Your task to perform on an android device: open app "Messenger Lite" (install if not already installed) and go to login screen Image 0: 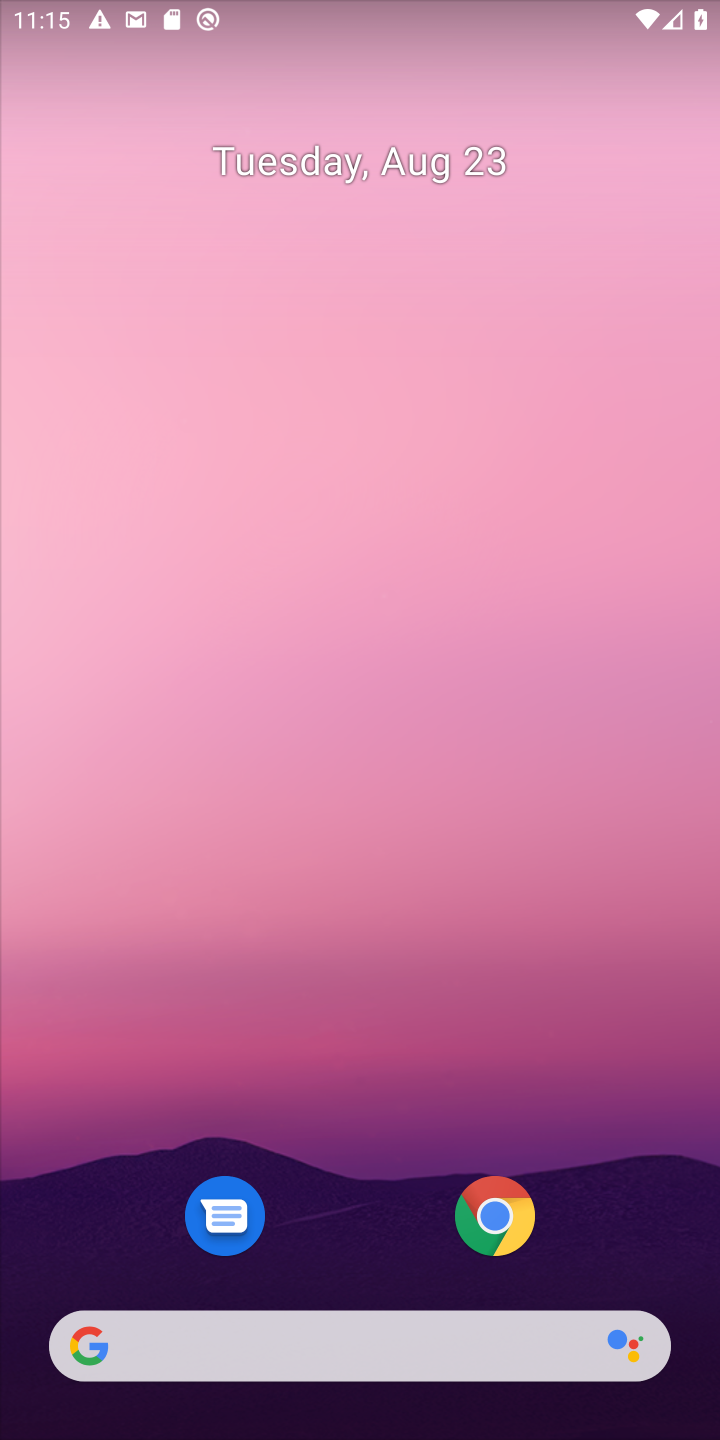
Step 0: drag from (281, 1356) to (533, 74)
Your task to perform on an android device: open app "Messenger Lite" (install if not already installed) and go to login screen Image 1: 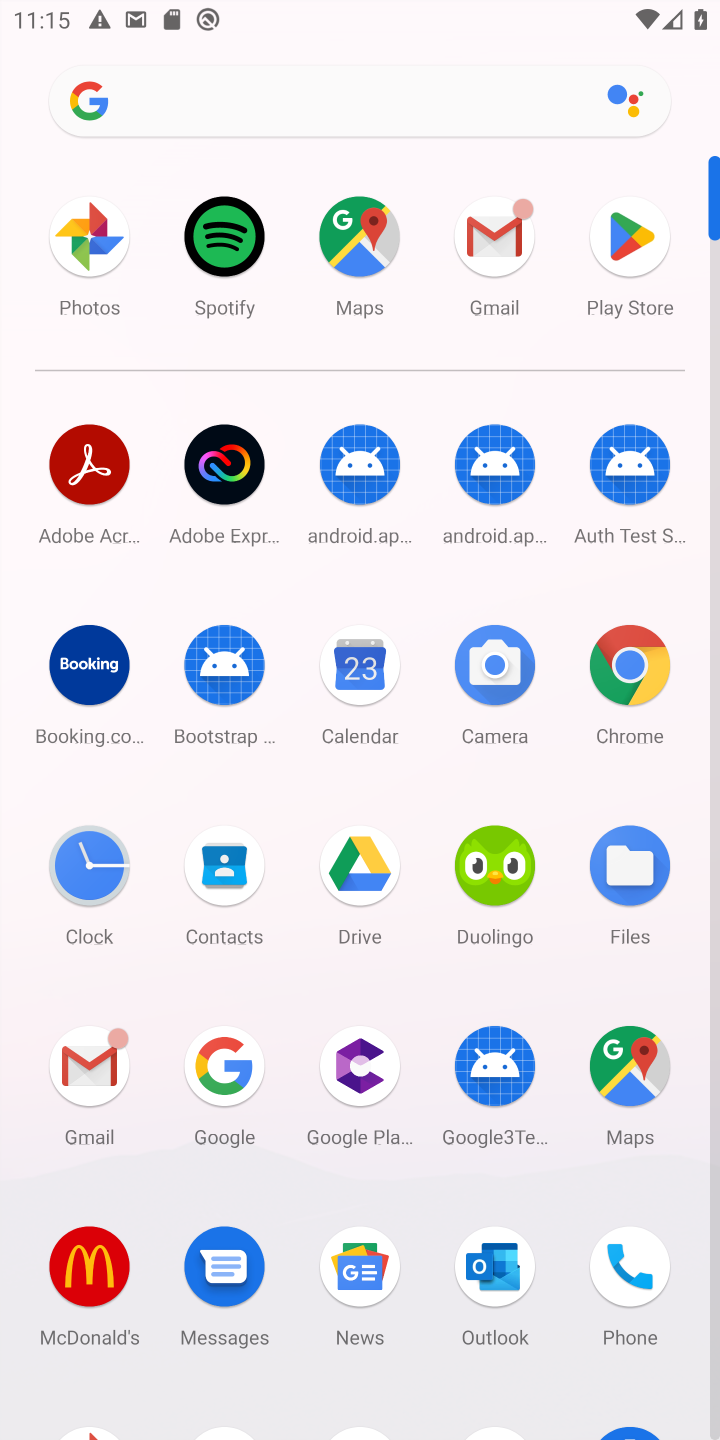
Step 1: click (631, 245)
Your task to perform on an android device: open app "Messenger Lite" (install if not already installed) and go to login screen Image 2: 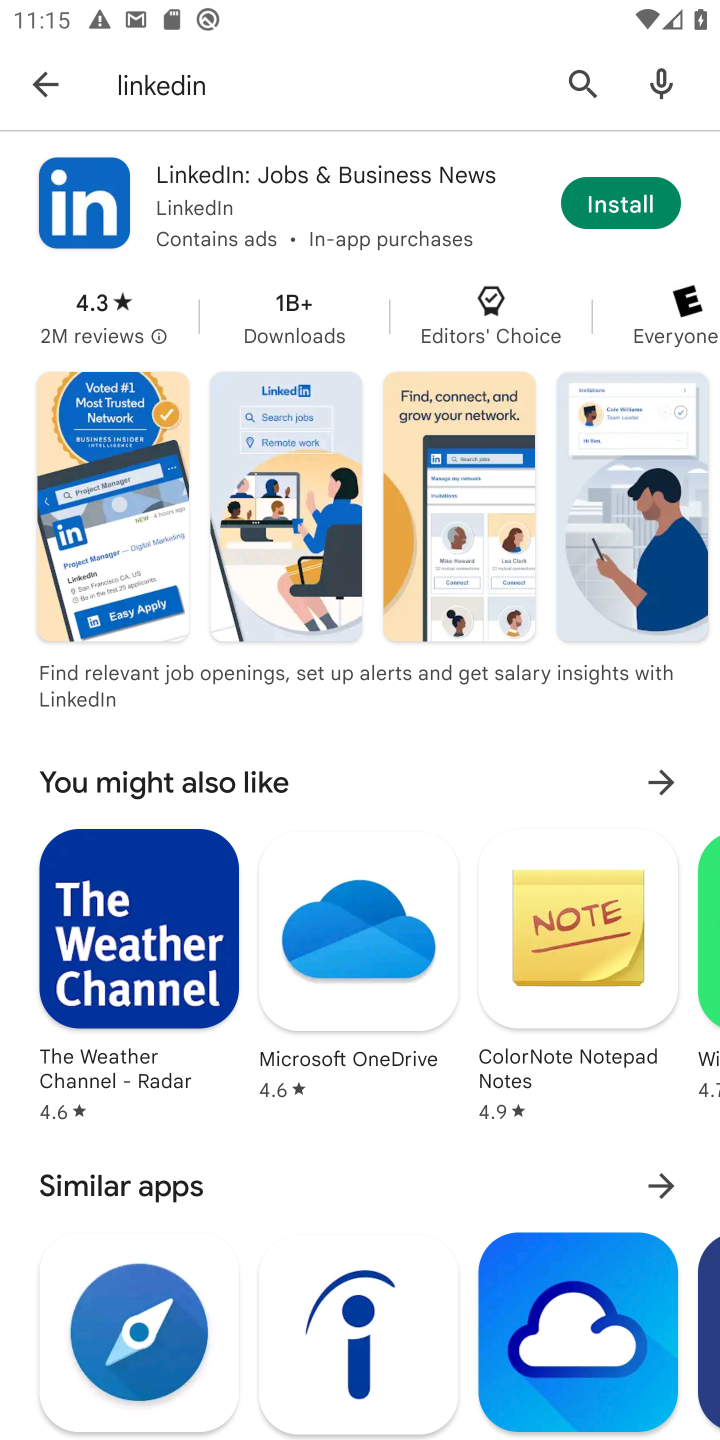
Step 2: press home button
Your task to perform on an android device: open app "Messenger Lite" (install if not already installed) and go to login screen Image 3: 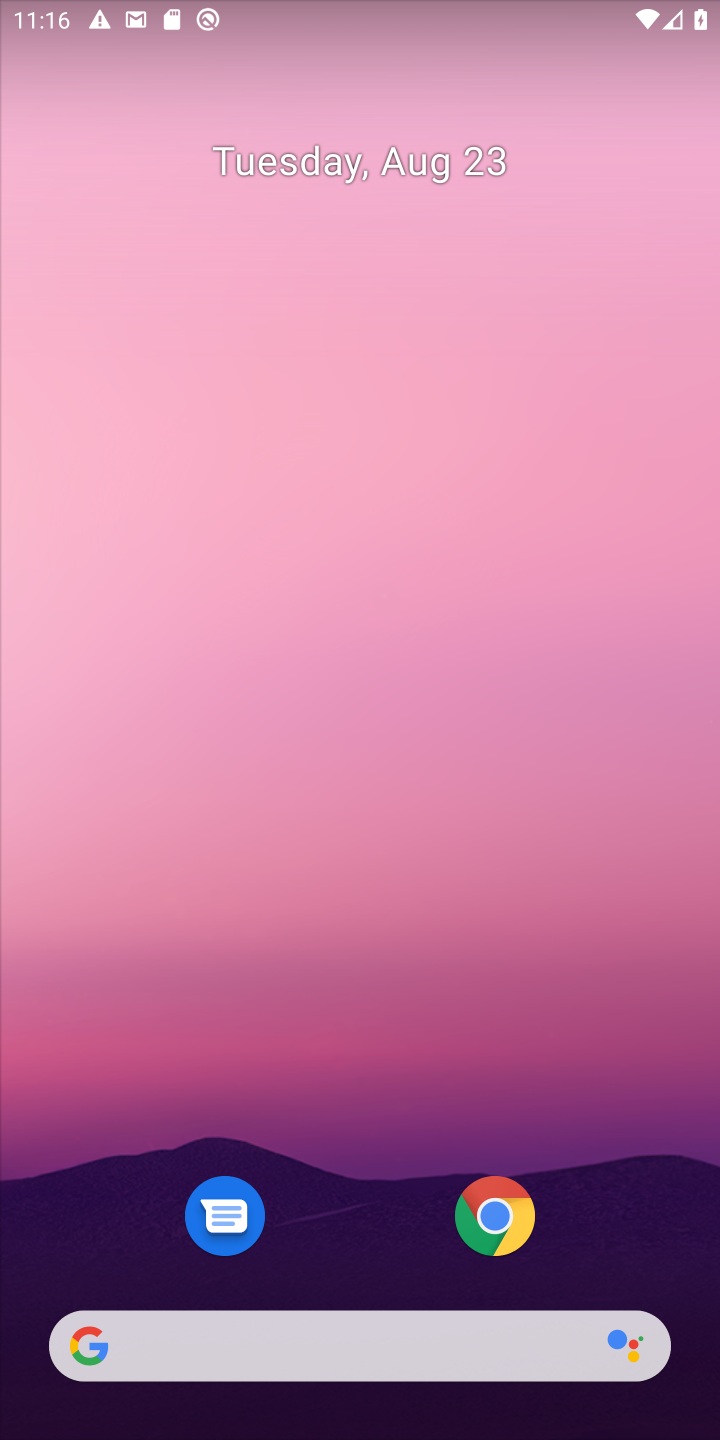
Step 3: drag from (265, 1334) to (596, 200)
Your task to perform on an android device: open app "Messenger Lite" (install if not already installed) and go to login screen Image 4: 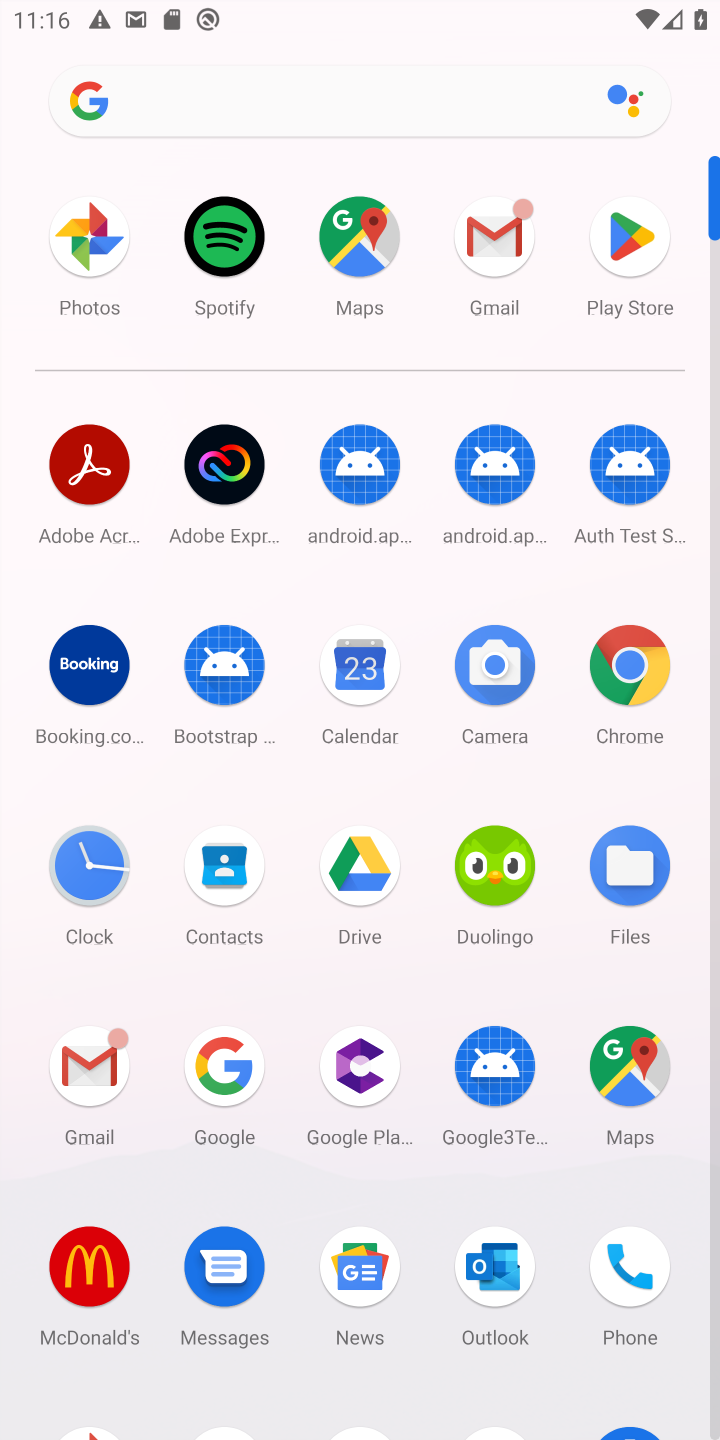
Step 4: click (629, 244)
Your task to perform on an android device: open app "Messenger Lite" (install if not already installed) and go to login screen Image 5: 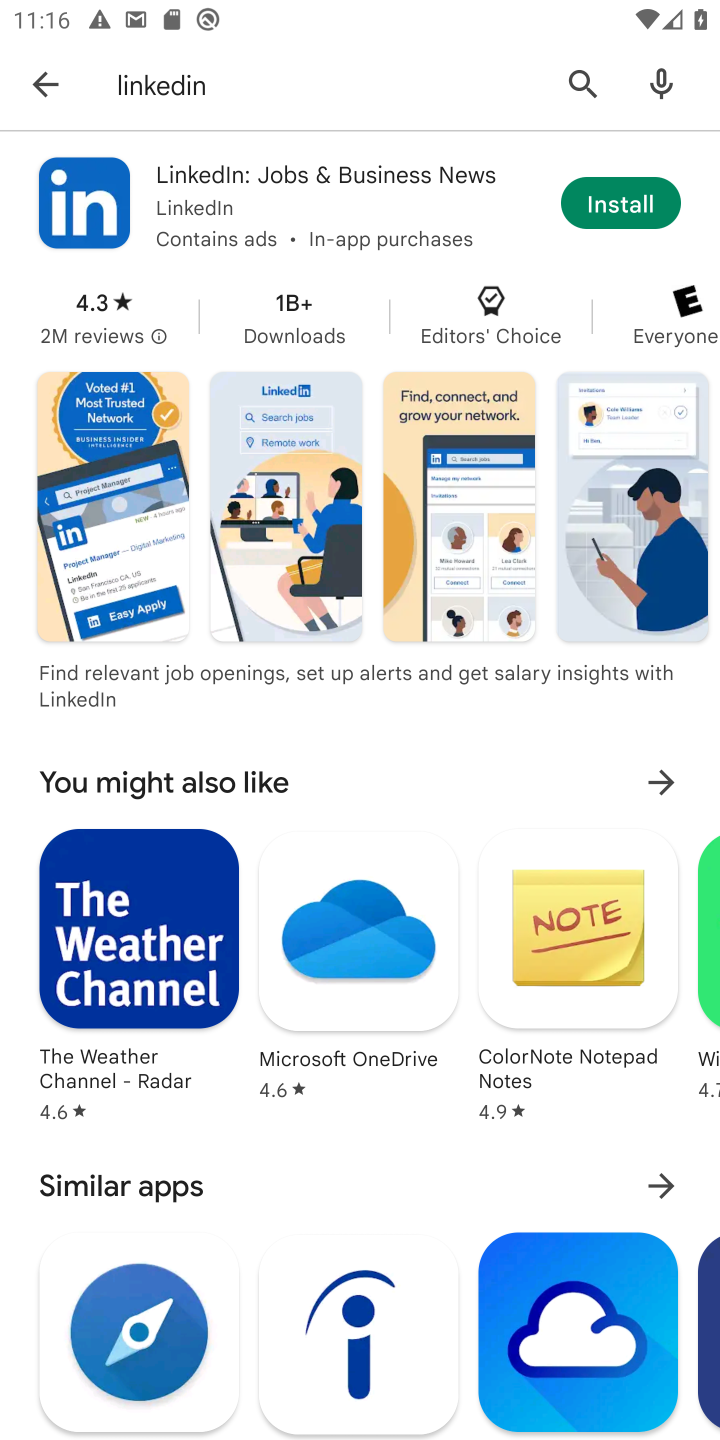
Step 5: press back button
Your task to perform on an android device: open app "Messenger Lite" (install if not already installed) and go to login screen Image 6: 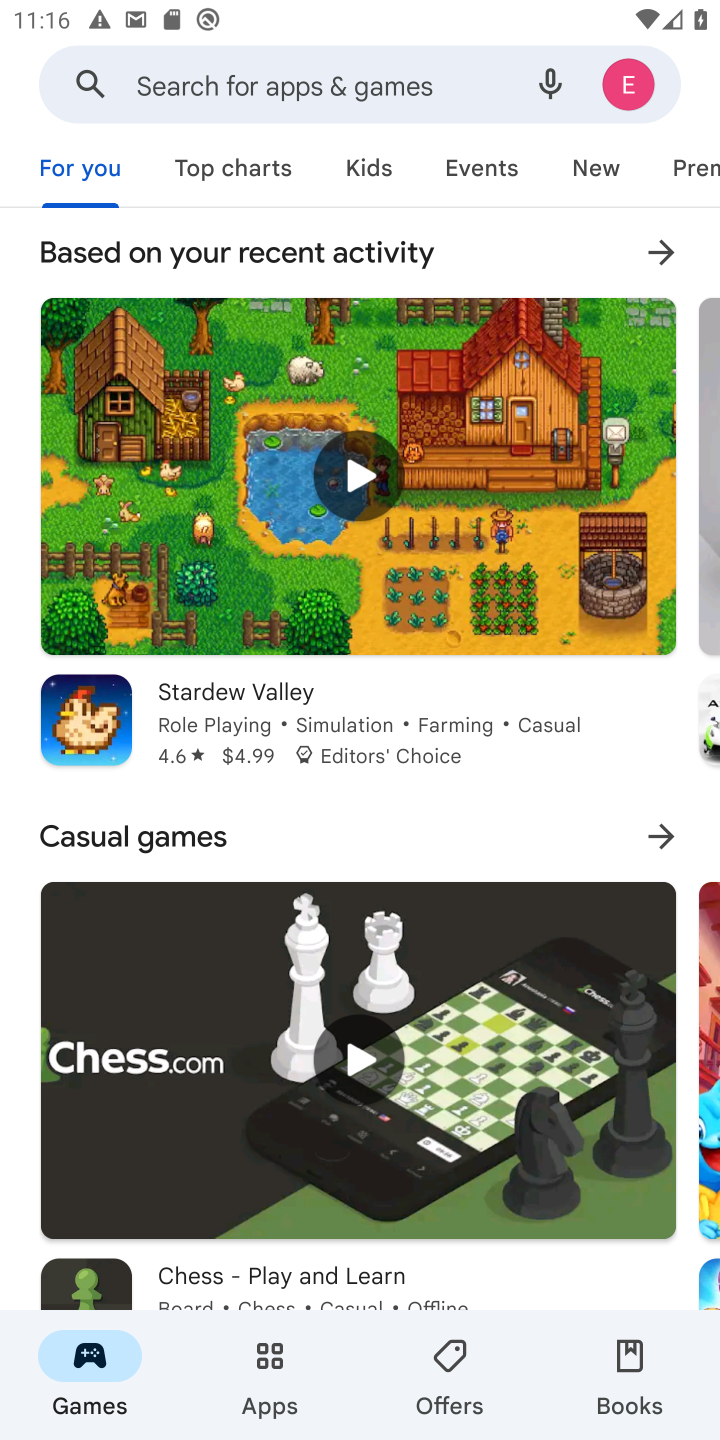
Step 6: click (250, 105)
Your task to perform on an android device: open app "Messenger Lite" (install if not already installed) and go to login screen Image 7: 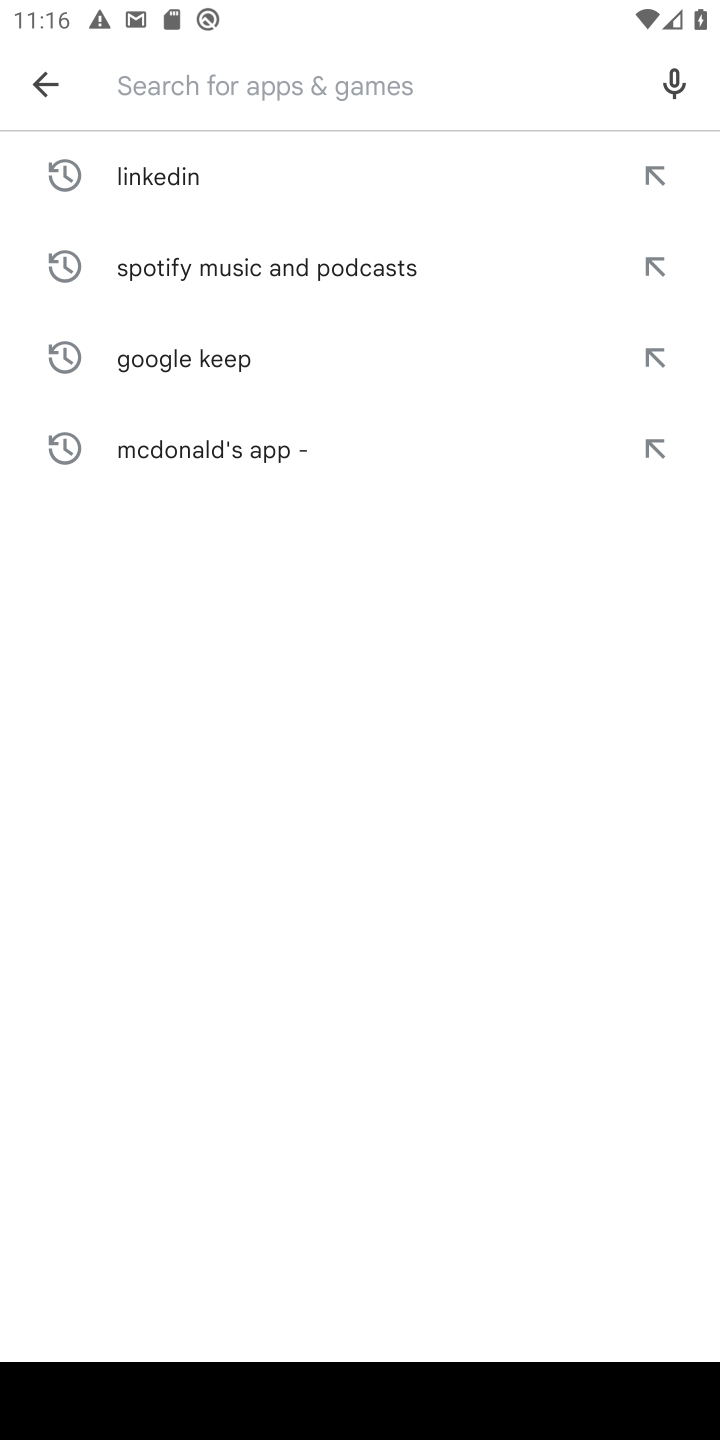
Step 7: type "Messenger Lite"
Your task to perform on an android device: open app "Messenger Lite" (install if not already installed) and go to login screen Image 8: 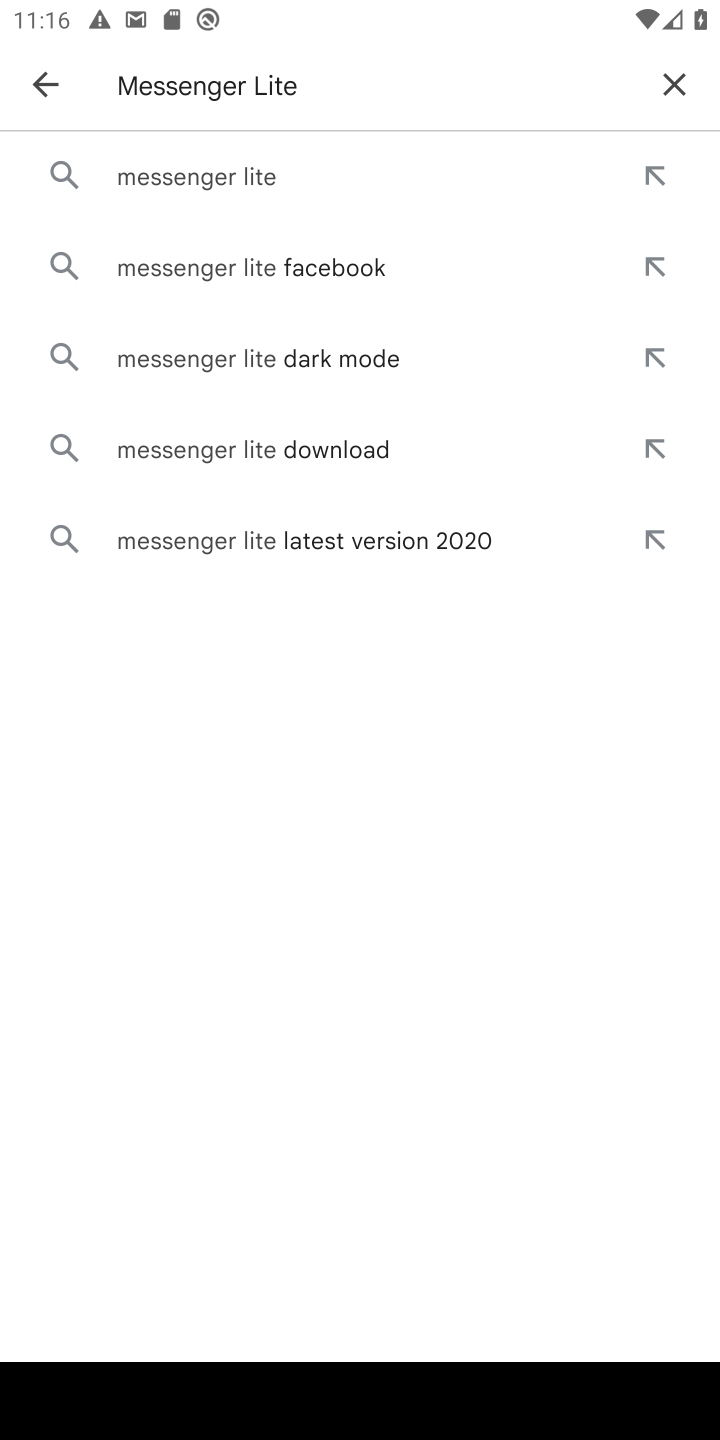
Step 8: click (247, 182)
Your task to perform on an android device: open app "Messenger Lite" (install if not already installed) and go to login screen Image 9: 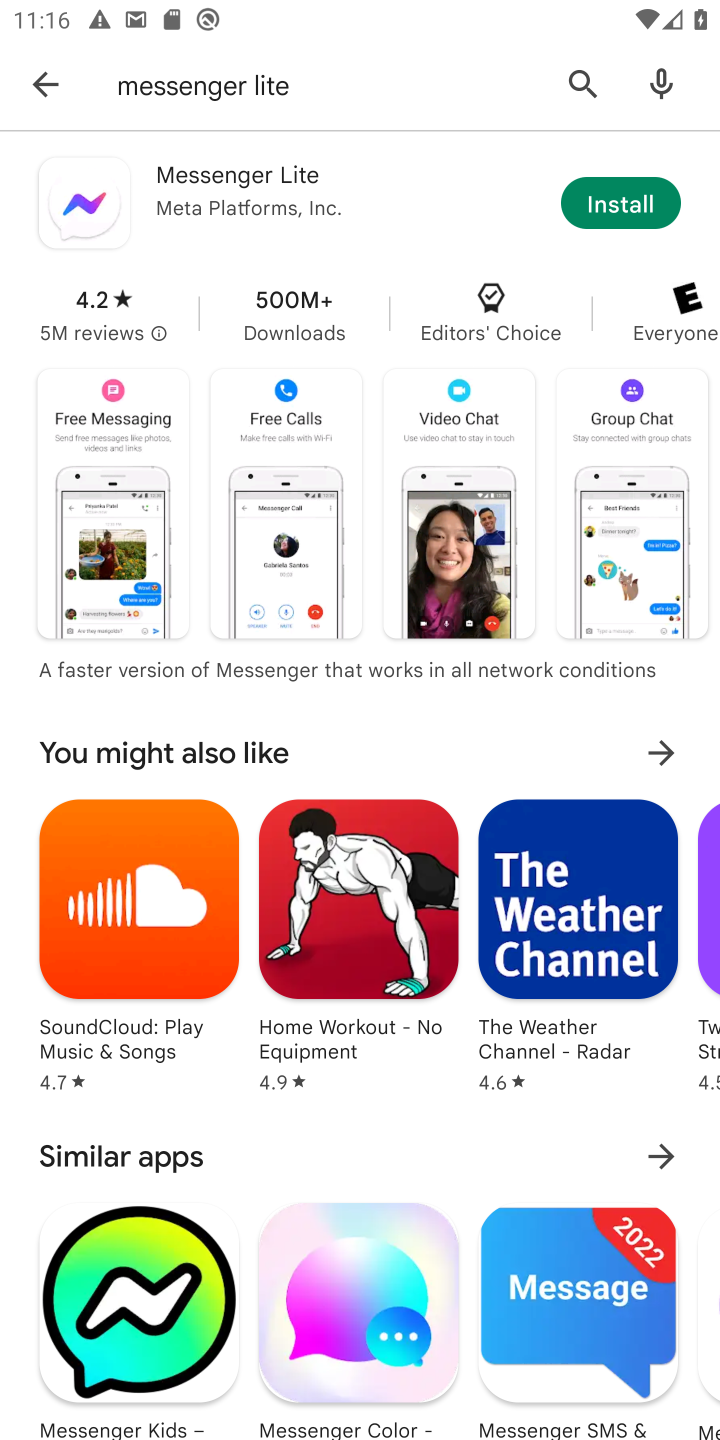
Step 9: click (598, 214)
Your task to perform on an android device: open app "Messenger Lite" (install if not already installed) and go to login screen Image 10: 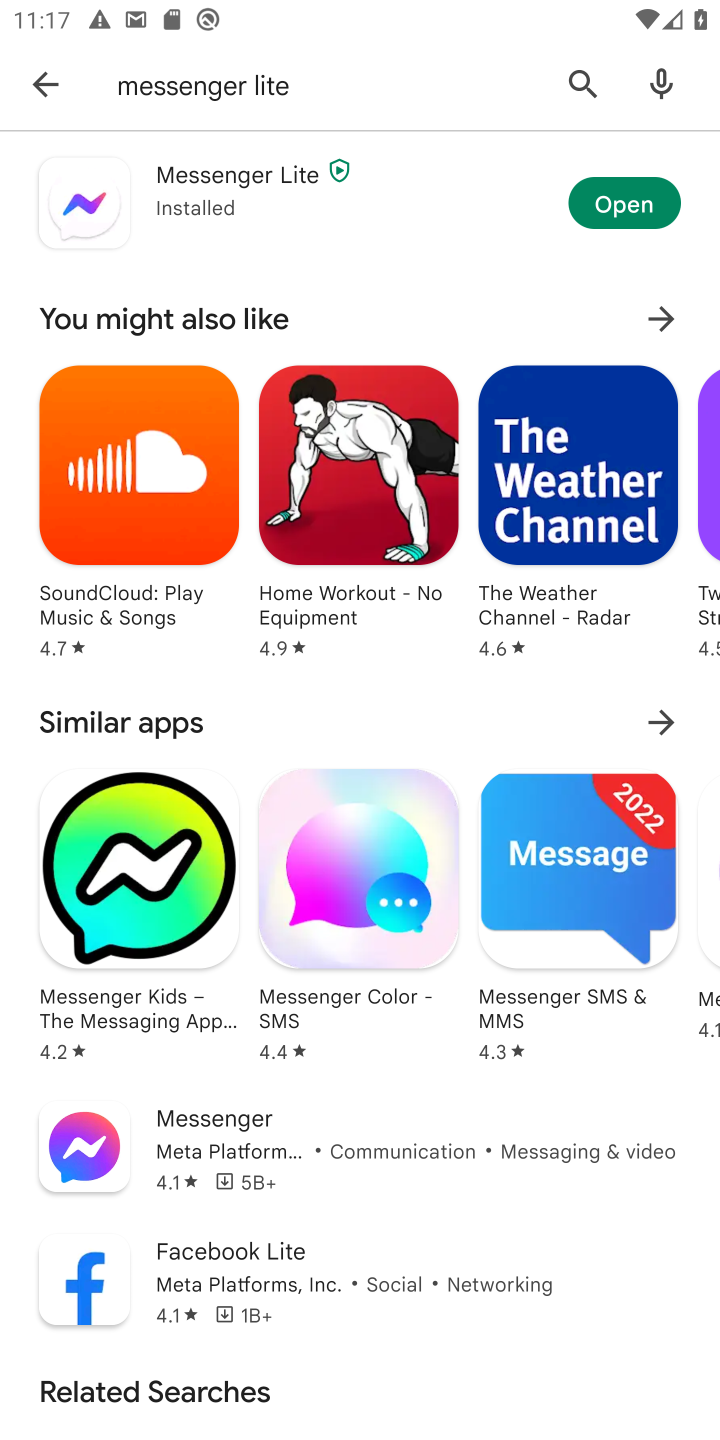
Step 10: click (635, 212)
Your task to perform on an android device: open app "Messenger Lite" (install if not already installed) and go to login screen Image 11: 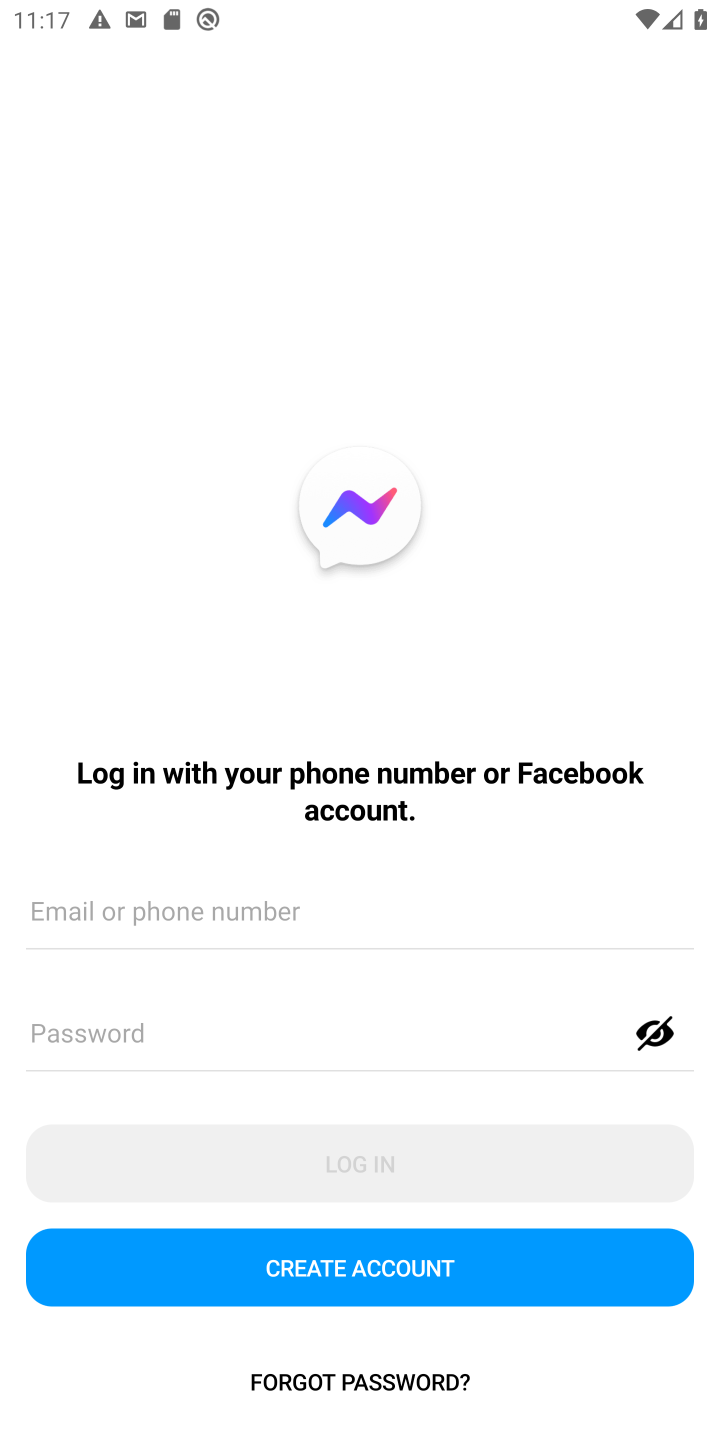
Step 11: task complete